Your task to perform on an android device: What's on my calendar tomorrow? Image 0: 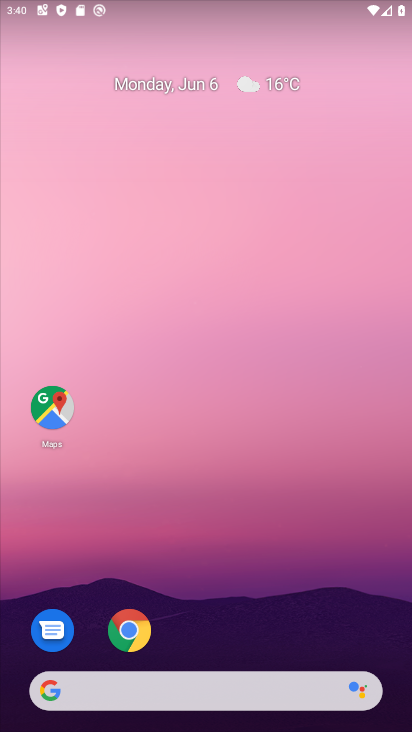
Step 0: click (246, 76)
Your task to perform on an android device: What's on my calendar tomorrow? Image 1: 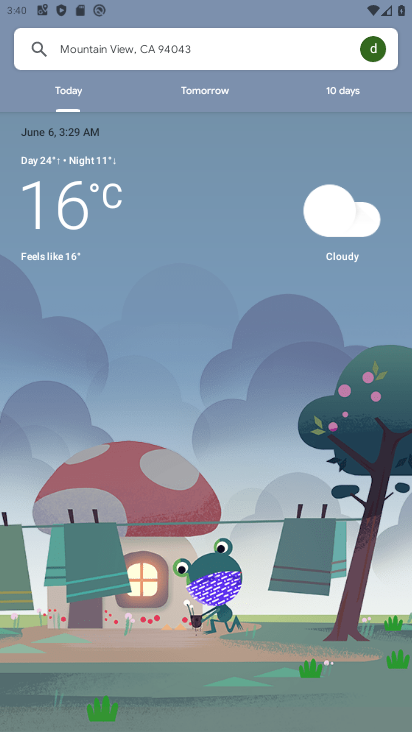
Step 1: click (203, 88)
Your task to perform on an android device: What's on my calendar tomorrow? Image 2: 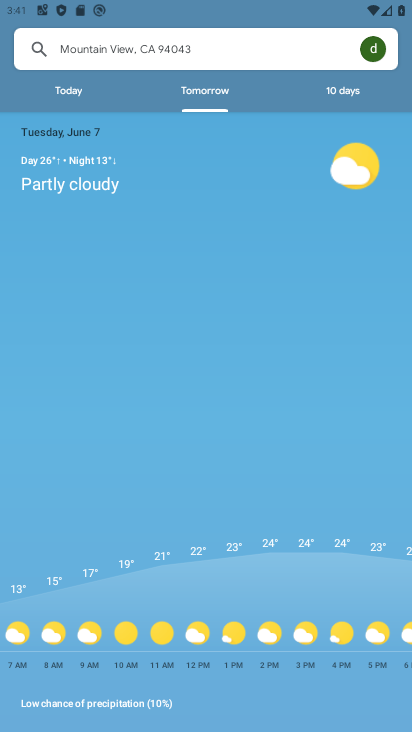
Step 2: task complete